Your task to perform on an android device: make emails show in primary in the gmail app Image 0: 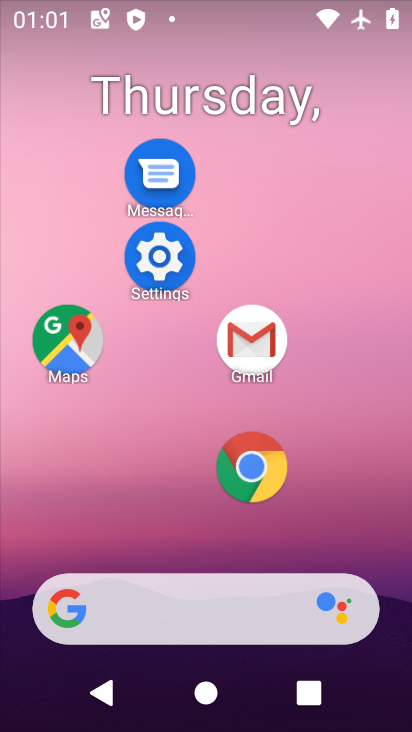
Step 0: drag from (102, 539) to (204, 96)
Your task to perform on an android device: make emails show in primary in the gmail app Image 1: 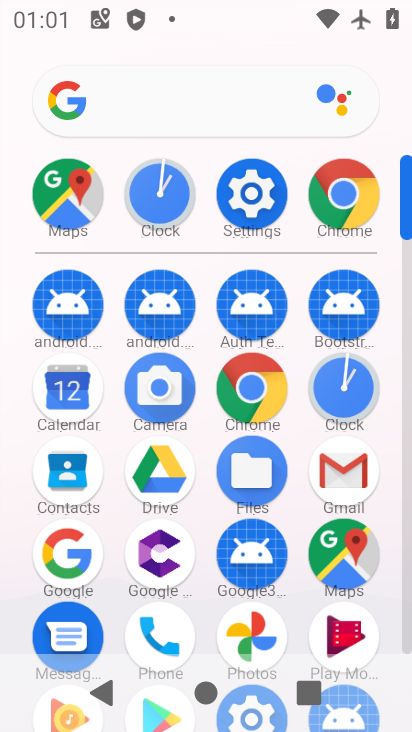
Step 1: click (359, 458)
Your task to perform on an android device: make emails show in primary in the gmail app Image 2: 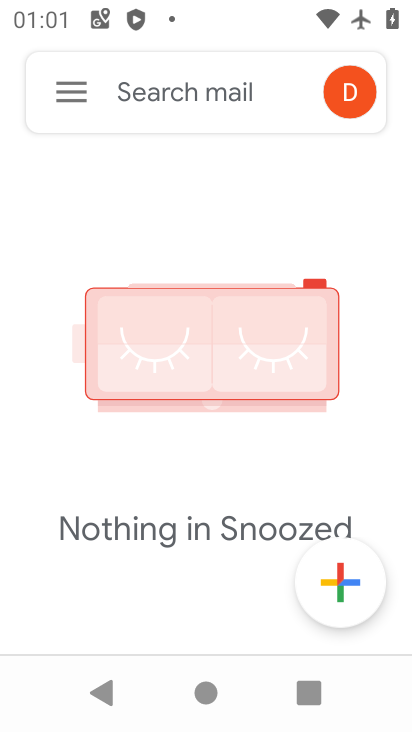
Step 2: click (63, 78)
Your task to perform on an android device: make emails show in primary in the gmail app Image 3: 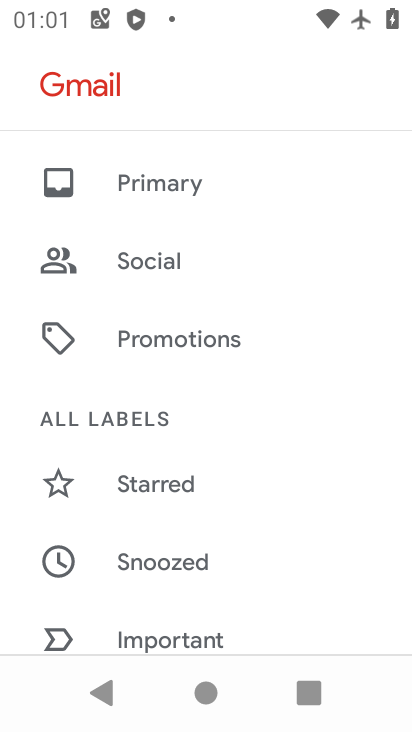
Step 3: click (159, 163)
Your task to perform on an android device: make emails show in primary in the gmail app Image 4: 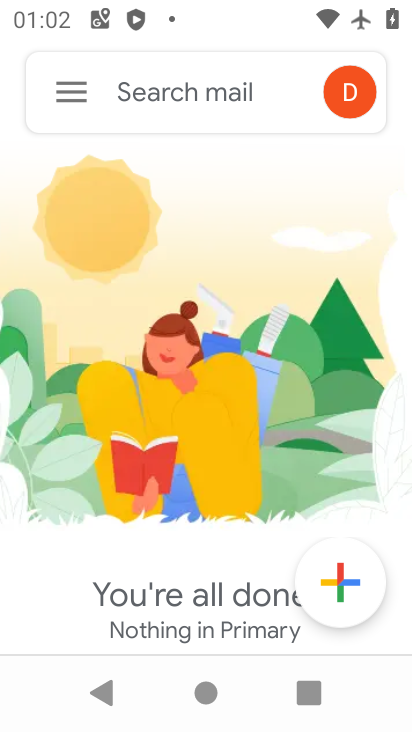
Step 4: click (372, 611)
Your task to perform on an android device: make emails show in primary in the gmail app Image 5: 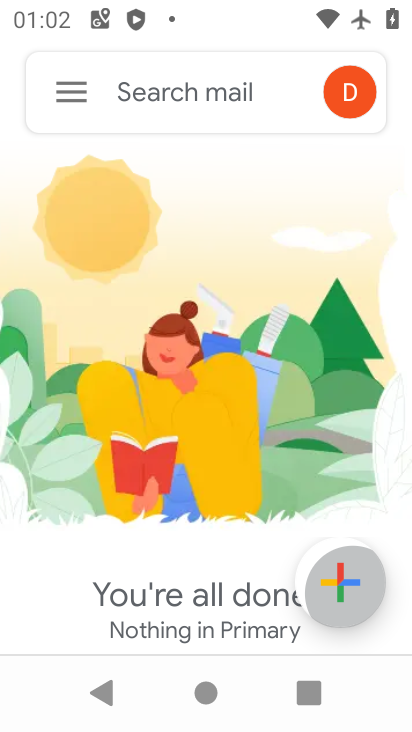
Step 5: task complete